Your task to perform on an android device: Open internet settings Image 0: 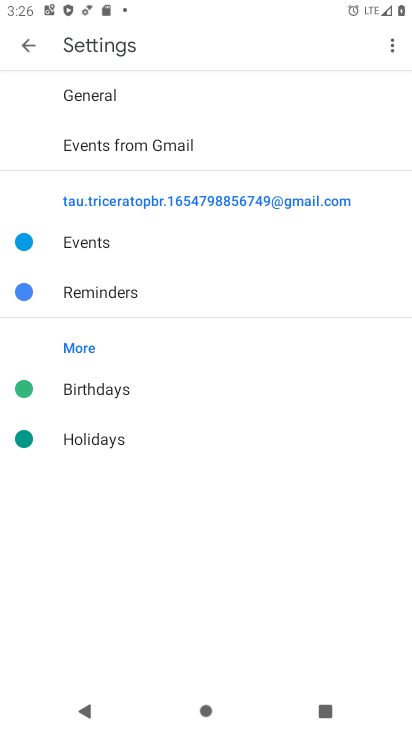
Step 0: press back button
Your task to perform on an android device: Open internet settings Image 1: 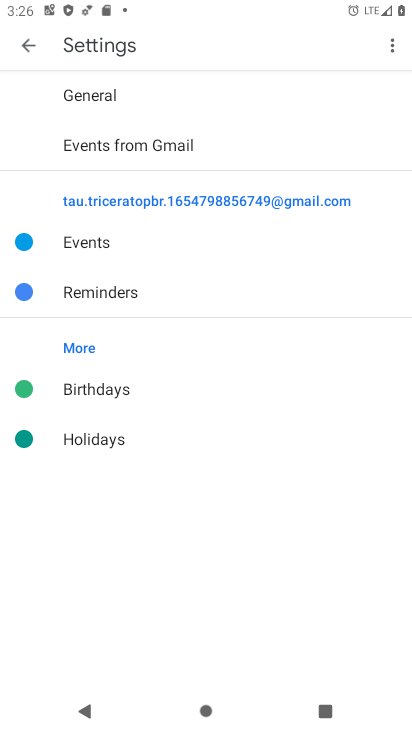
Step 1: press back button
Your task to perform on an android device: Open internet settings Image 2: 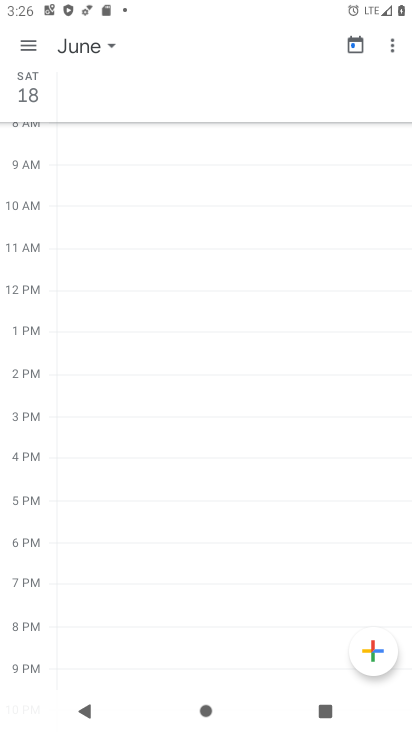
Step 2: press back button
Your task to perform on an android device: Open internet settings Image 3: 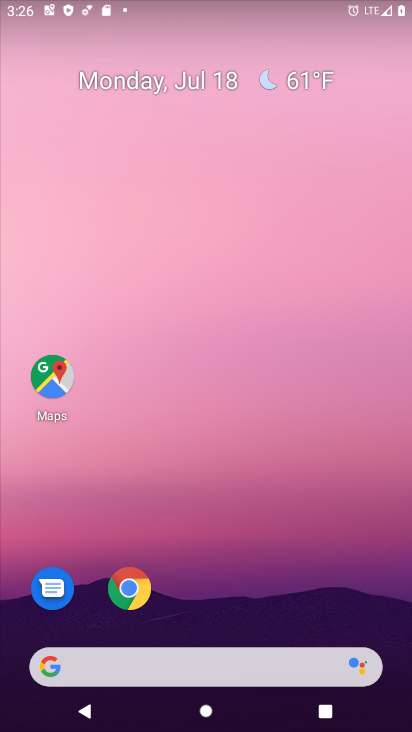
Step 3: drag from (290, 614) to (239, 0)
Your task to perform on an android device: Open internet settings Image 4: 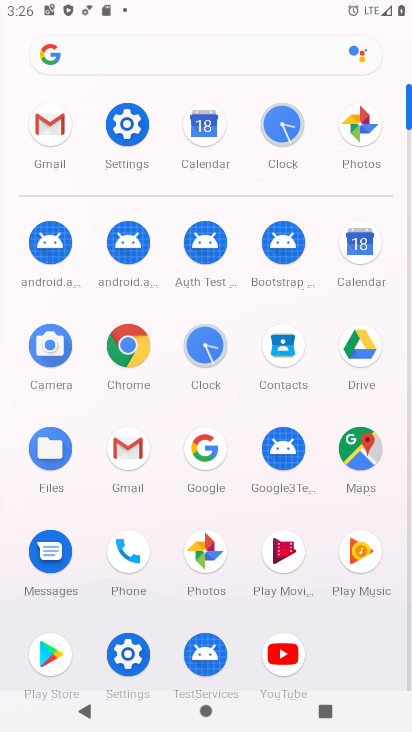
Step 4: click (125, 132)
Your task to perform on an android device: Open internet settings Image 5: 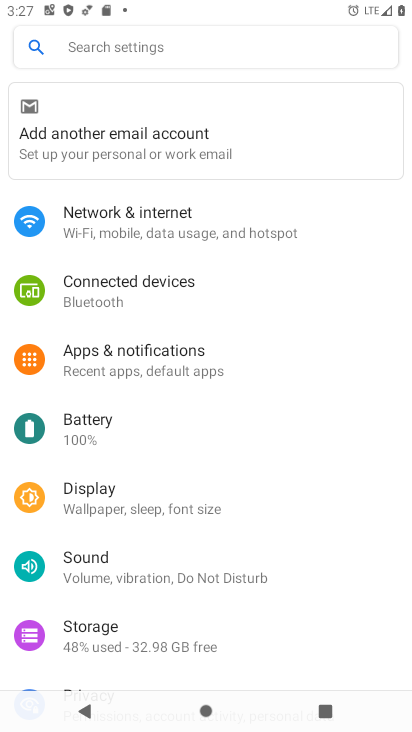
Step 5: click (178, 224)
Your task to perform on an android device: Open internet settings Image 6: 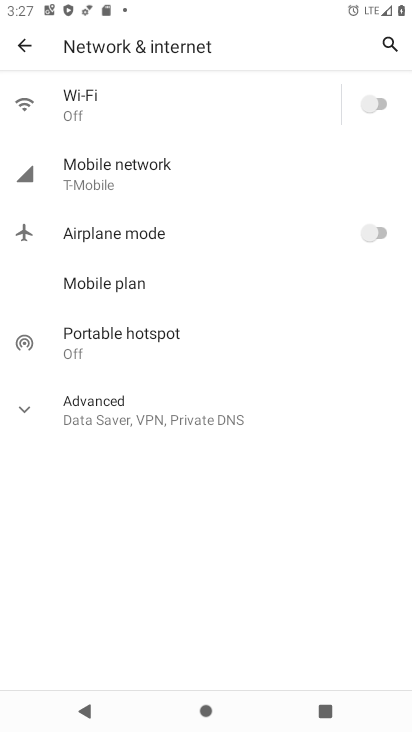
Step 6: task complete